Your task to perform on an android device: Open Chrome and go to the settings page Image 0: 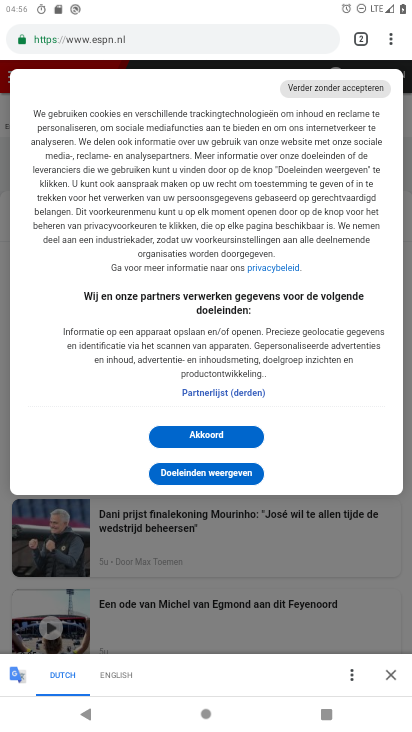
Step 0: click (392, 36)
Your task to perform on an android device: Open Chrome and go to the settings page Image 1: 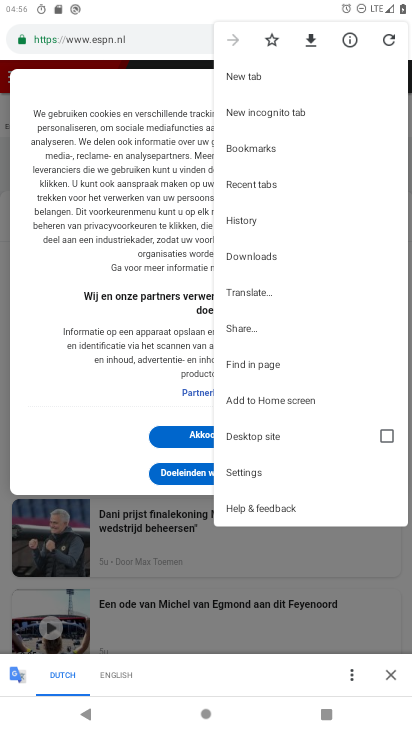
Step 1: click (275, 472)
Your task to perform on an android device: Open Chrome and go to the settings page Image 2: 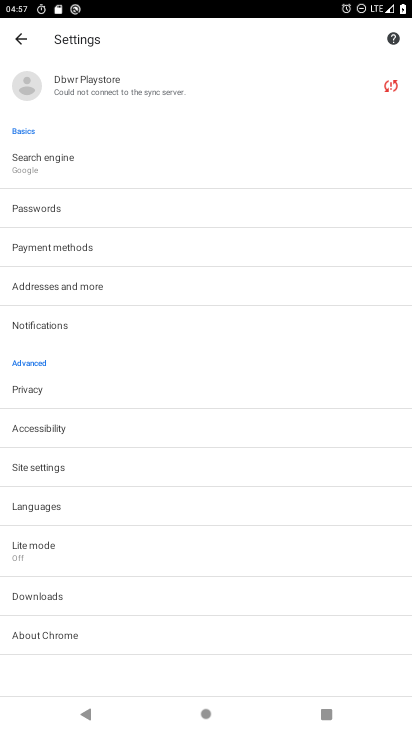
Step 2: task complete